Your task to perform on an android device: Search for jbl flip 4 on target, select the first entry, and add it to the cart. Image 0: 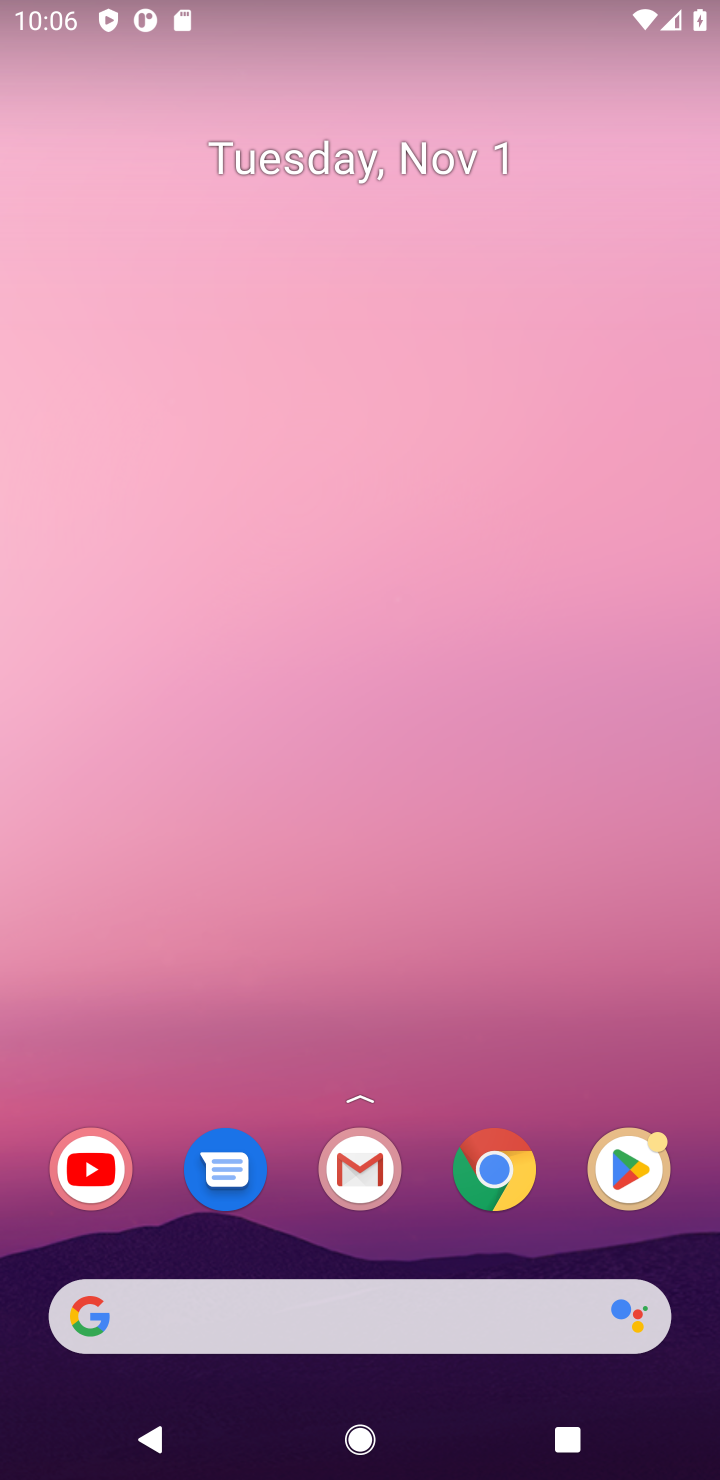
Step 0: press home button
Your task to perform on an android device: Search for jbl flip 4 on target, select the first entry, and add it to the cart. Image 1: 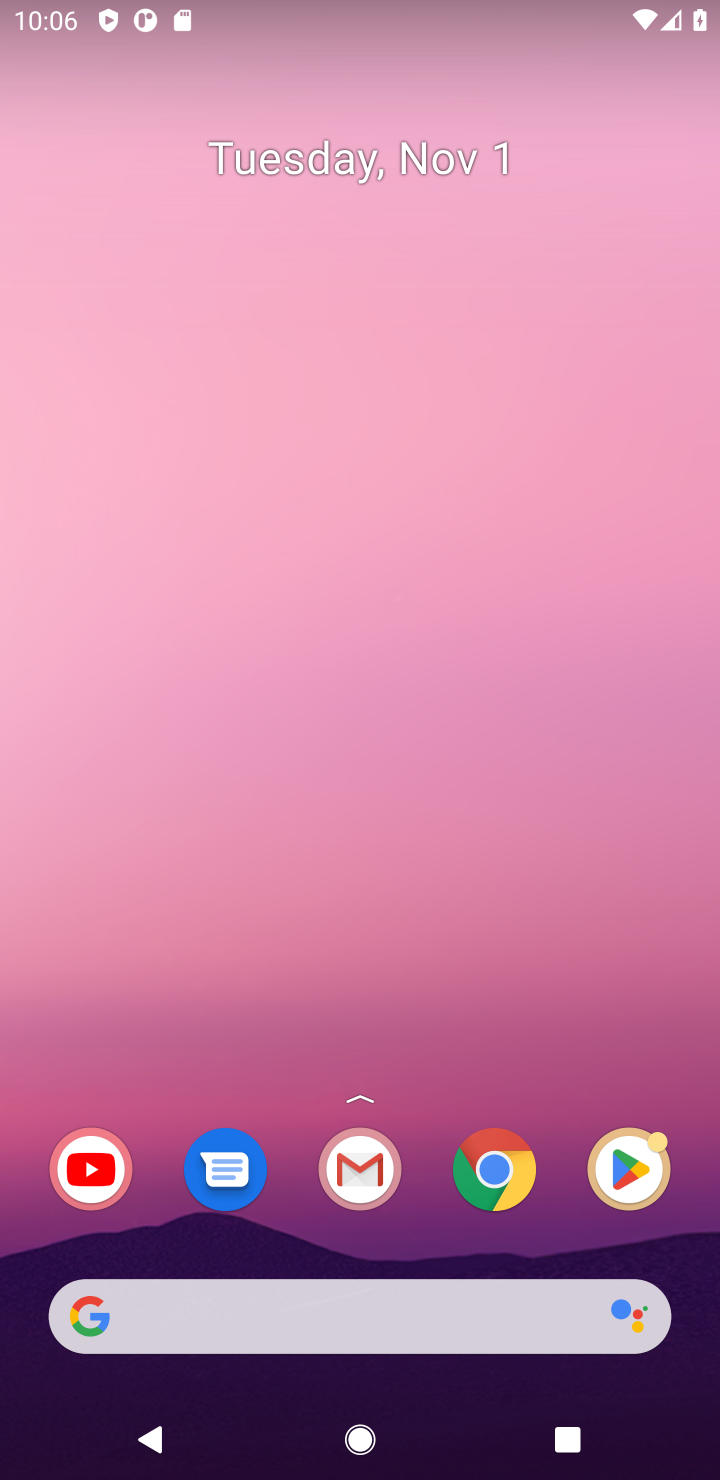
Step 1: click (502, 1175)
Your task to perform on an android device: Search for jbl flip 4 on target, select the first entry, and add it to the cart. Image 2: 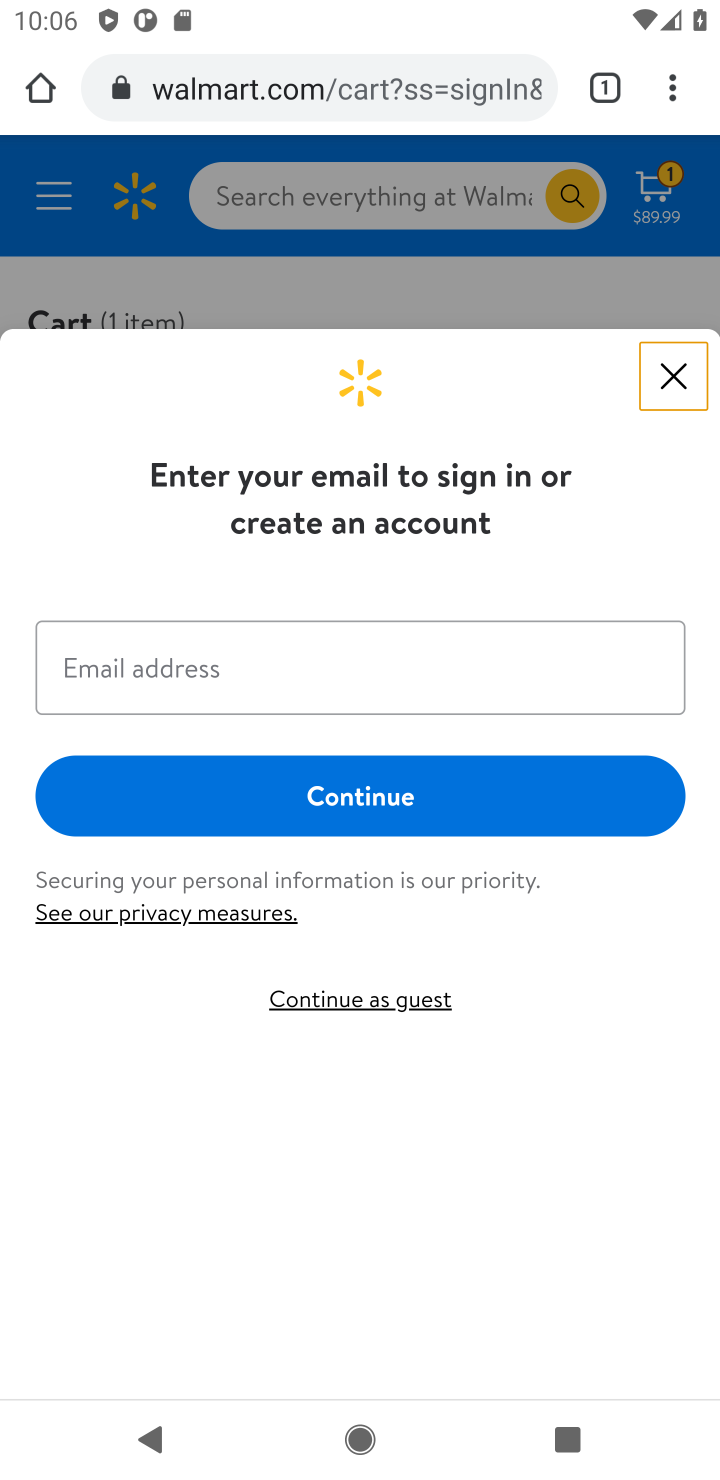
Step 2: click (662, 394)
Your task to perform on an android device: Search for jbl flip 4 on target, select the first entry, and add it to the cart. Image 3: 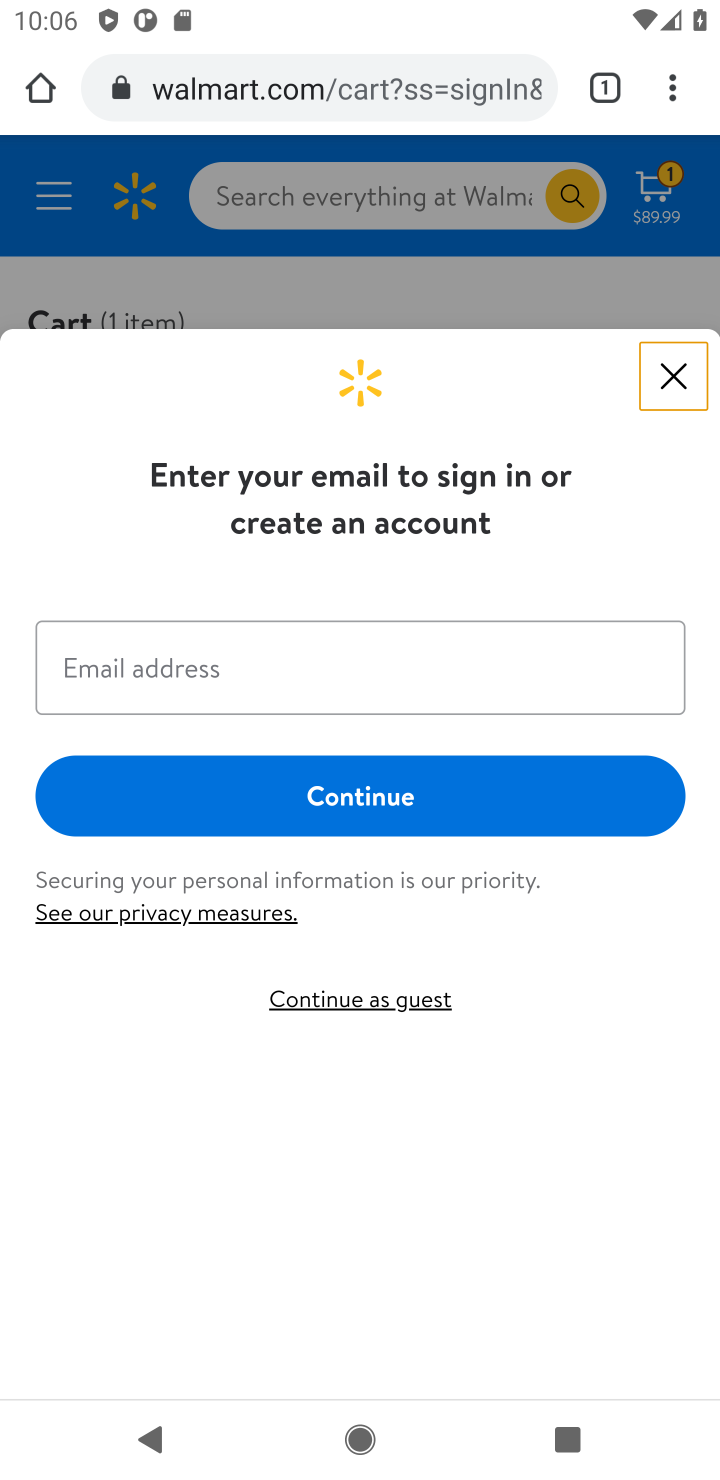
Step 3: click (314, 73)
Your task to perform on an android device: Search for jbl flip 4 on target, select the first entry, and add it to the cart. Image 4: 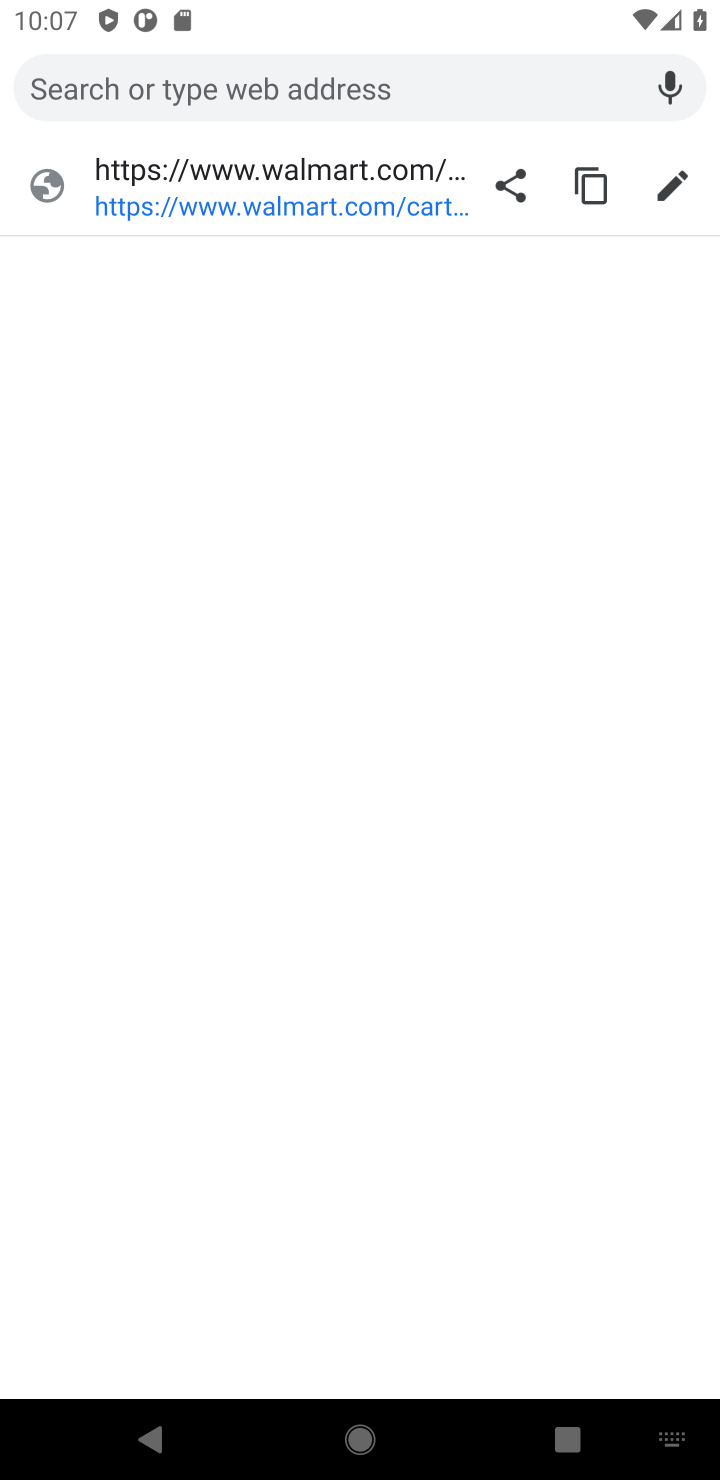
Step 4: type "target"
Your task to perform on an android device: Search for jbl flip 4 on target, select the first entry, and add it to the cart. Image 5: 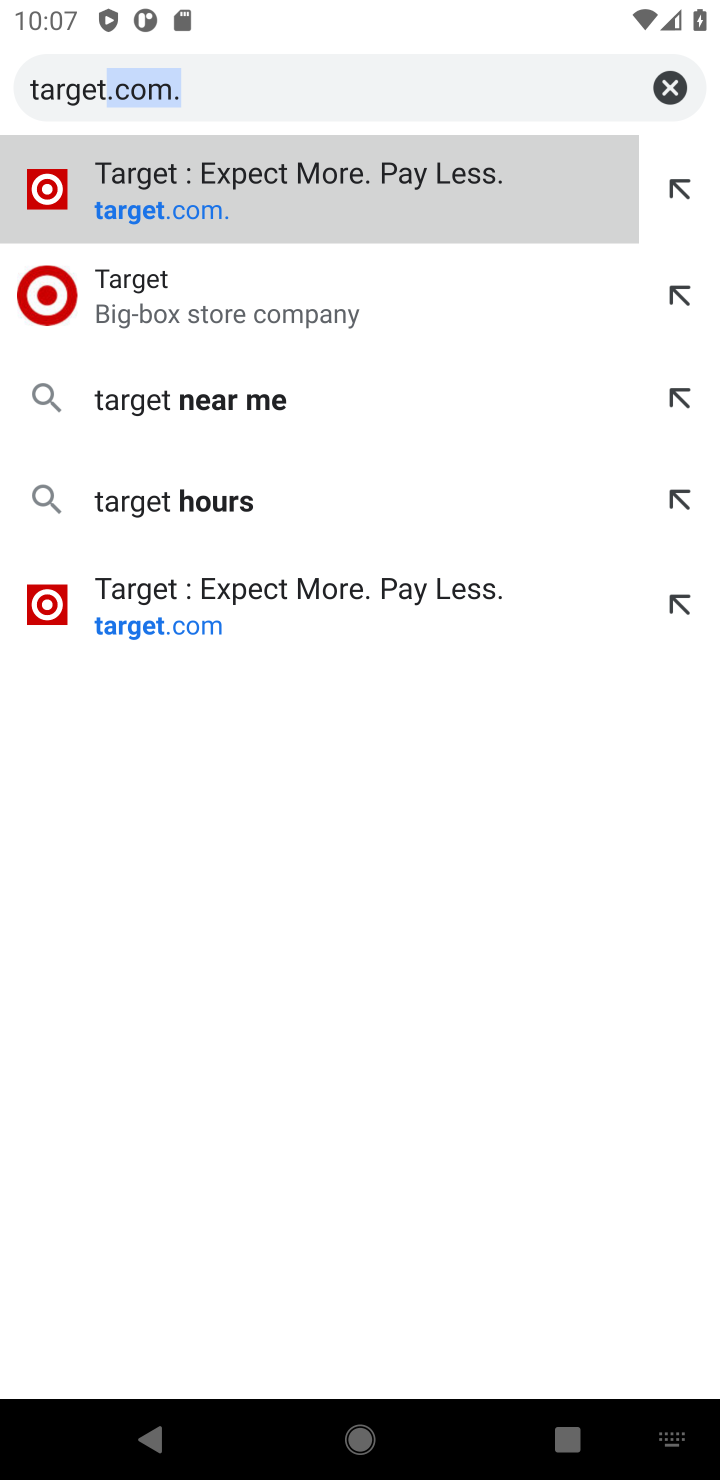
Step 5: press enter
Your task to perform on an android device: Search for jbl flip 4 on target, select the first entry, and add it to the cart. Image 6: 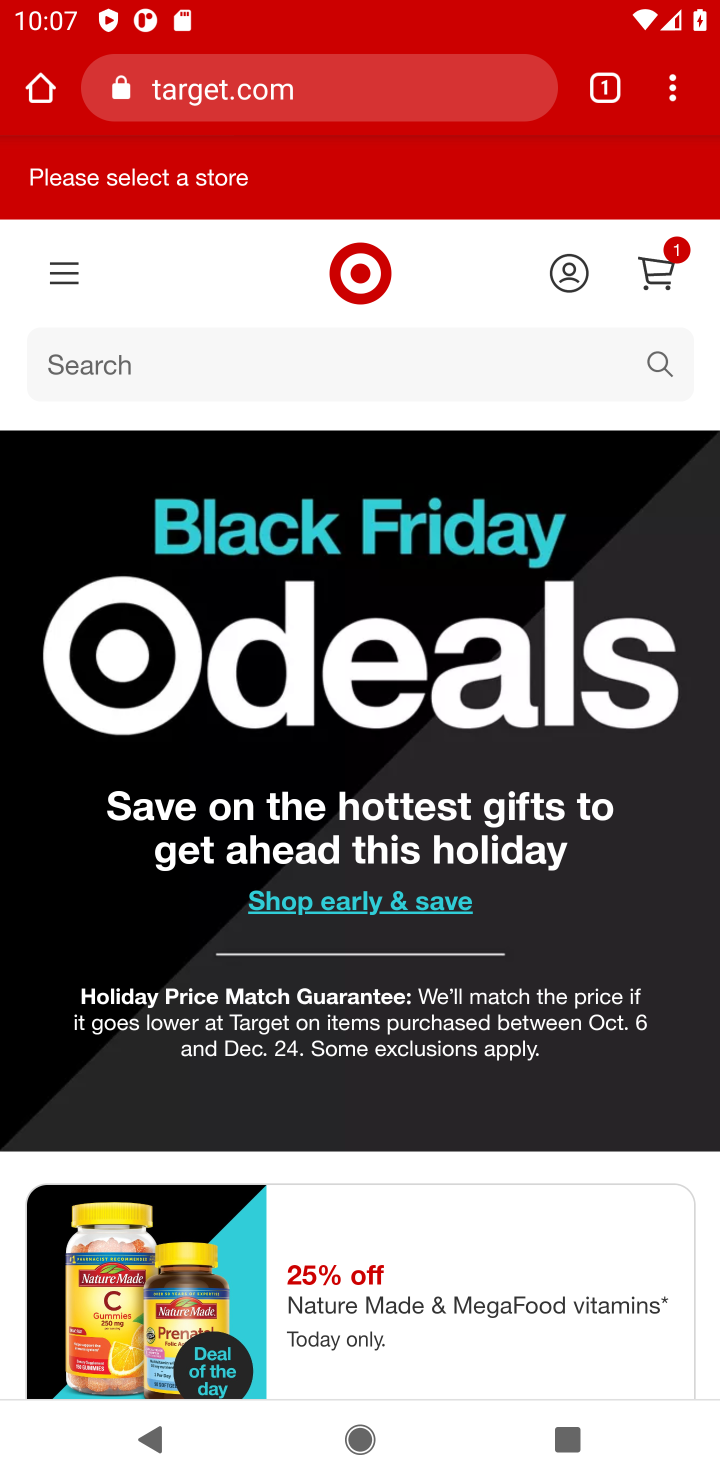
Step 6: click (655, 357)
Your task to perform on an android device: Search for jbl flip 4 on target, select the first entry, and add it to the cart. Image 7: 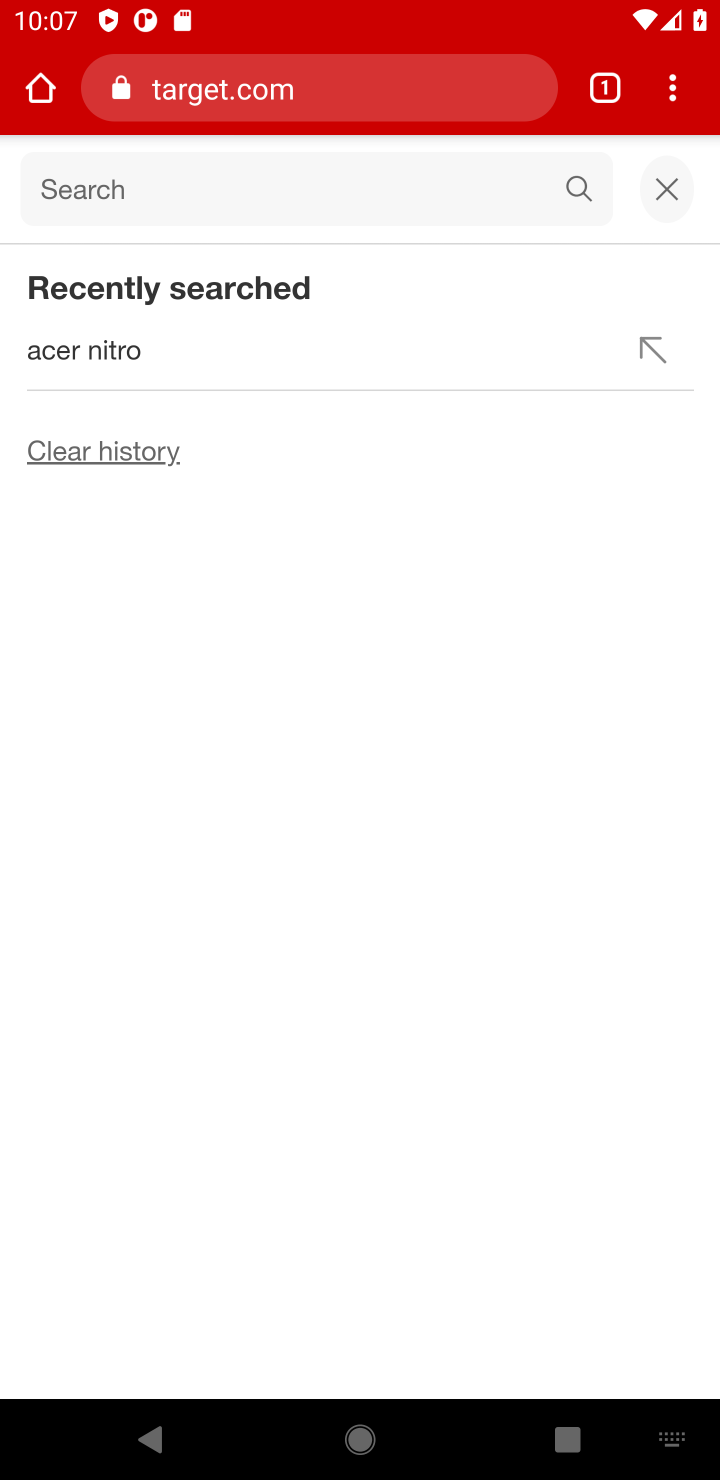
Step 7: type "jbl flip 4"
Your task to perform on an android device: Search for jbl flip 4 on target, select the first entry, and add it to the cart. Image 8: 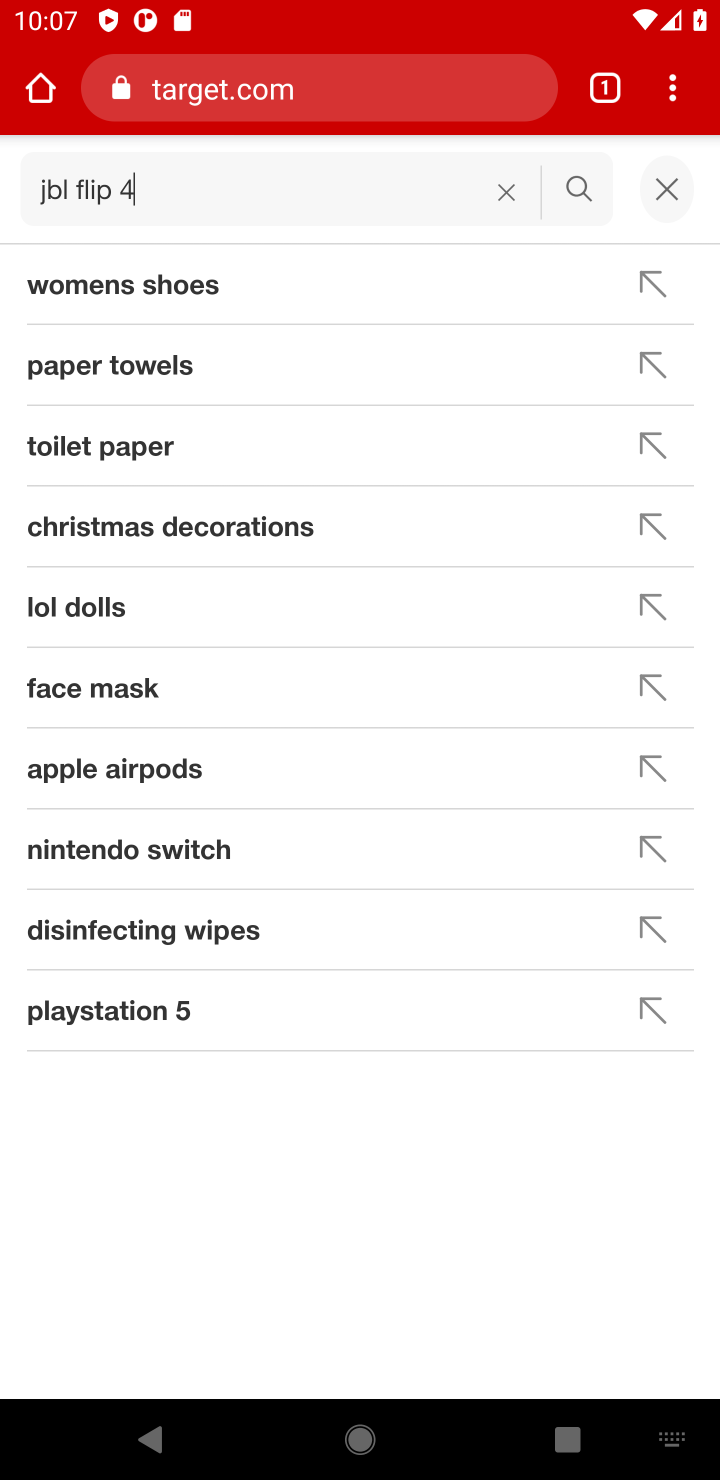
Step 8: press enter
Your task to perform on an android device: Search for jbl flip 4 on target, select the first entry, and add it to the cart. Image 9: 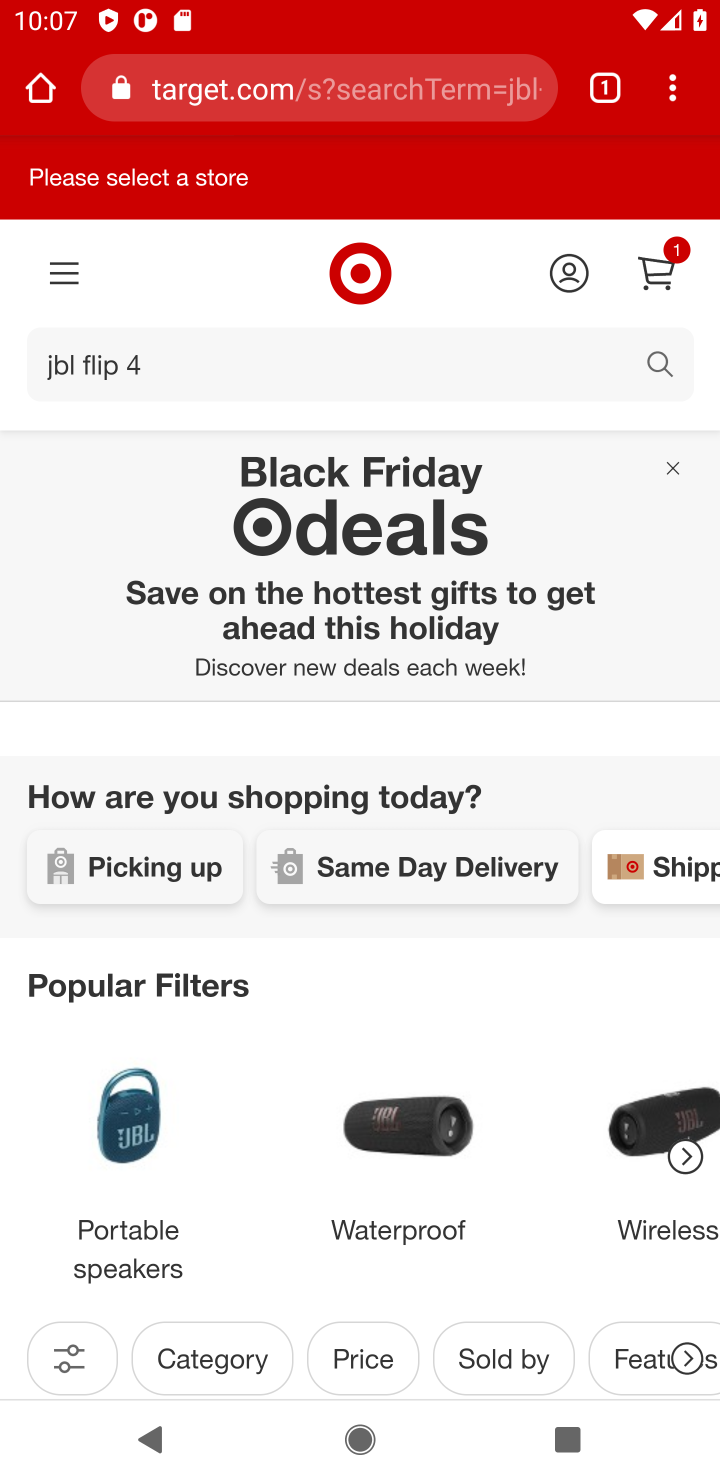
Step 9: drag from (516, 1063) to (438, 467)
Your task to perform on an android device: Search for jbl flip 4 on target, select the first entry, and add it to the cart. Image 10: 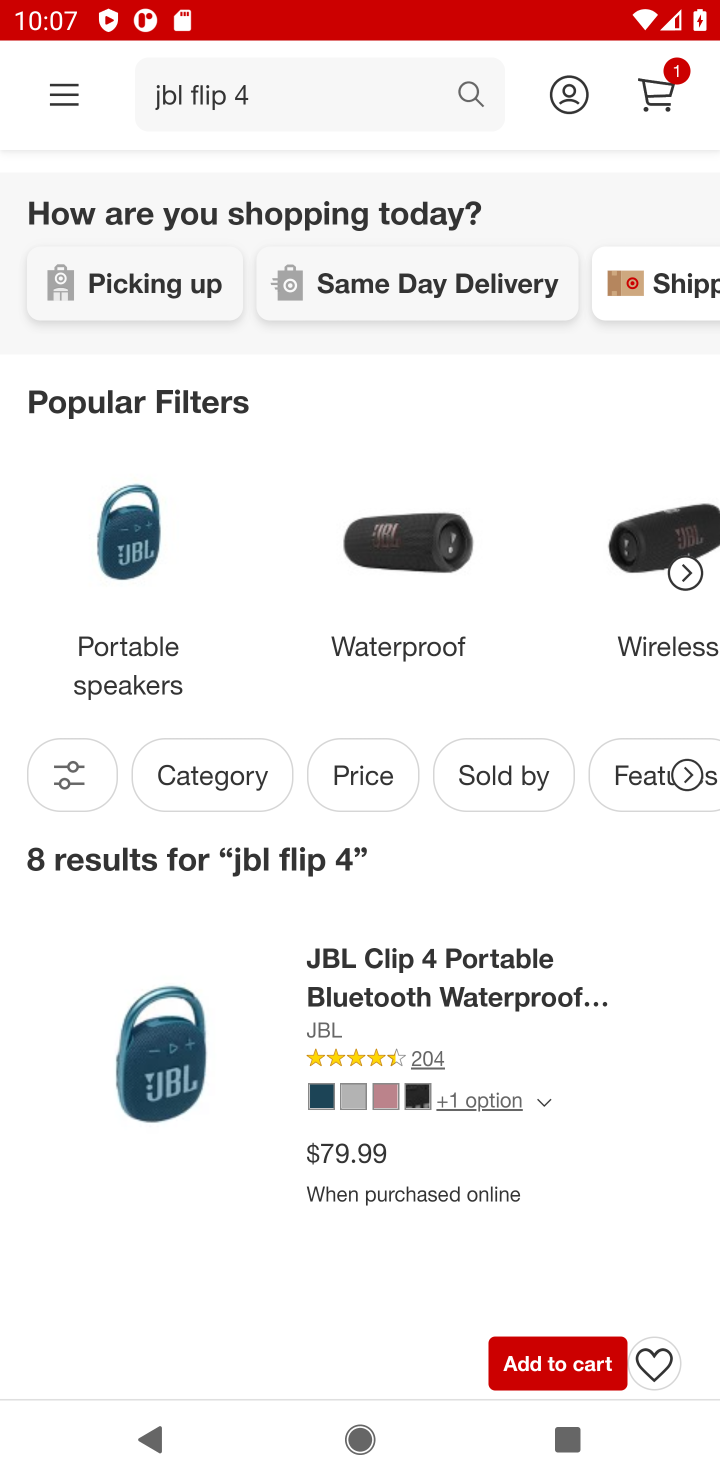
Step 10: click (157, 1032)
Your task to perform on an android device: Search for jbl flip 4 on target, select the first entry, and add it to the cart. Image 11: 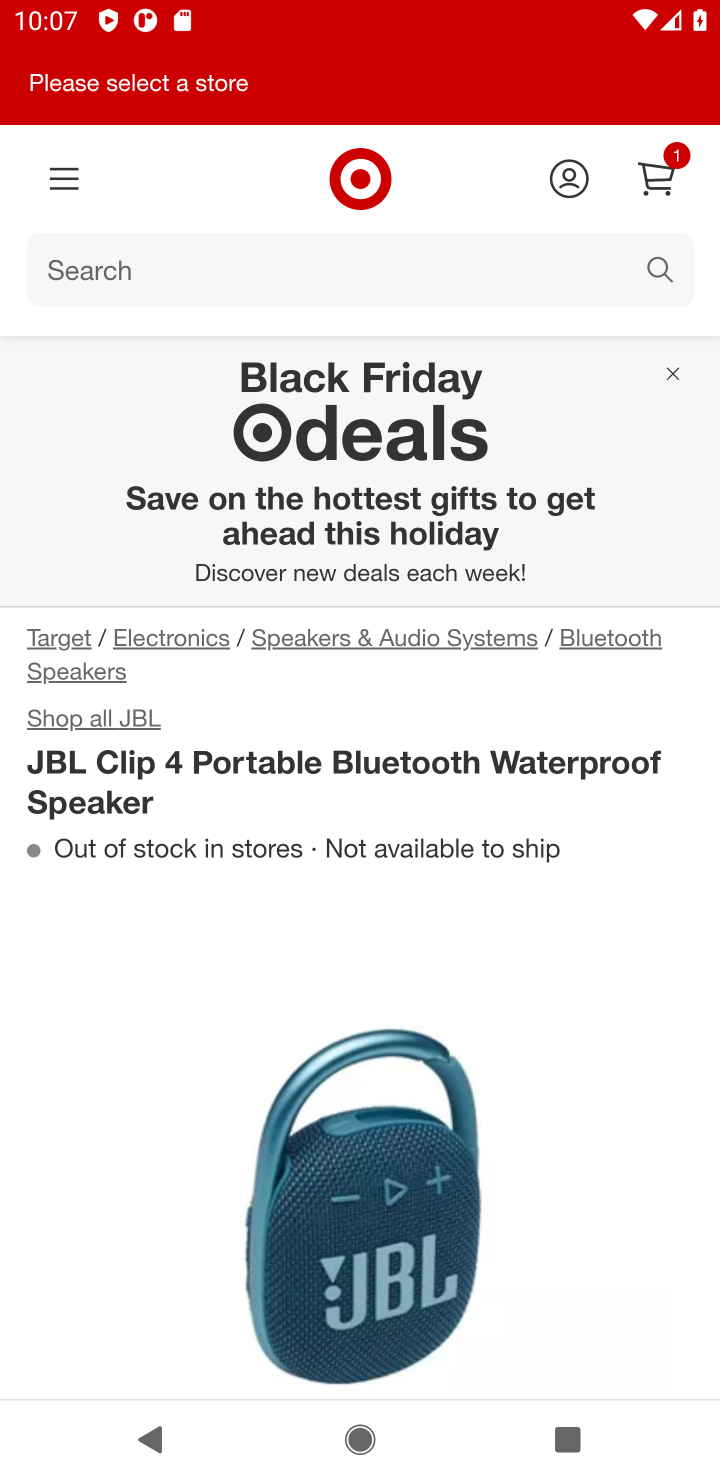
Step 11: drag from (633, 1210) to (562, 412)
Your task to perform on an android device: Search for jbl flip 4 on target, select the first entry, and add it to the cart. Image 12: 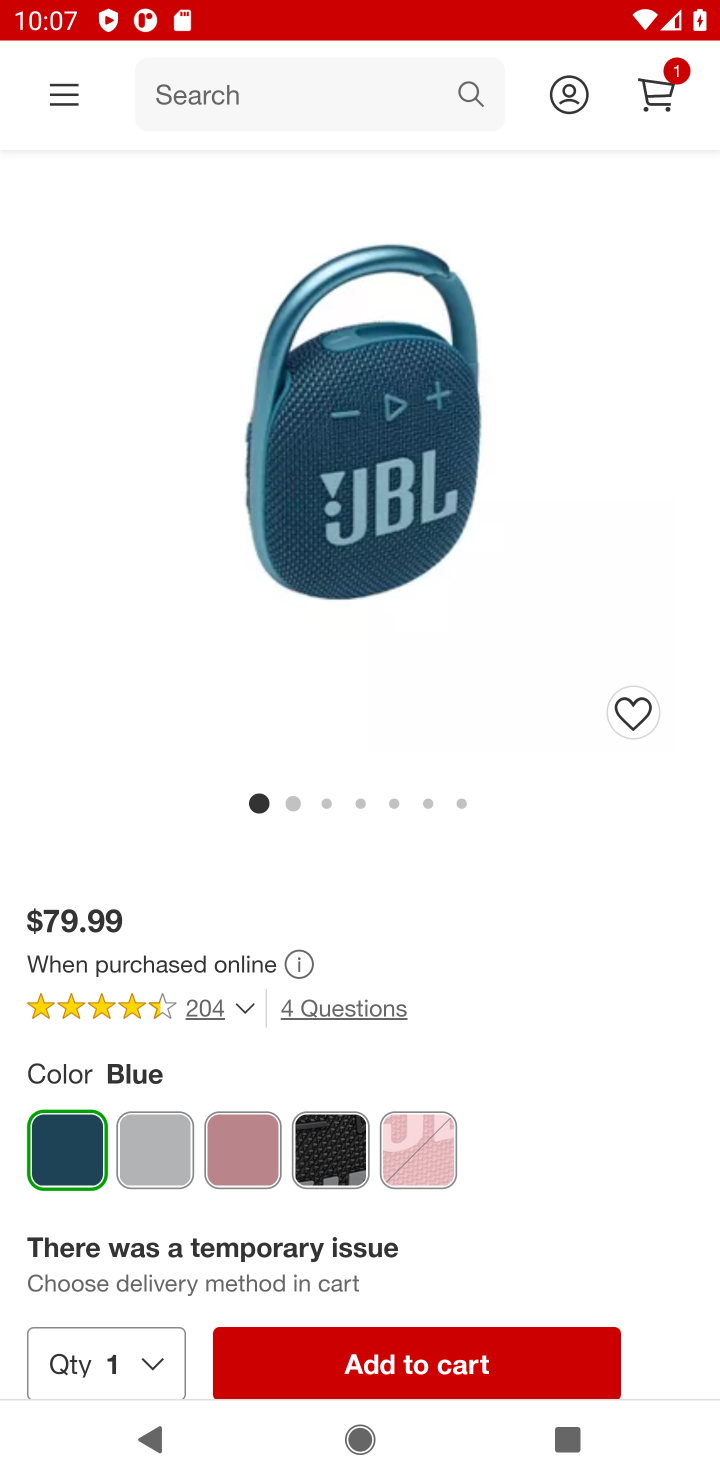
Step 12: drag from (531, 1154) to (482, 368)
Your task to perform on an android device: Search for jbl flip 4 on target, select the first entry, and add it to the cart. Image 13: 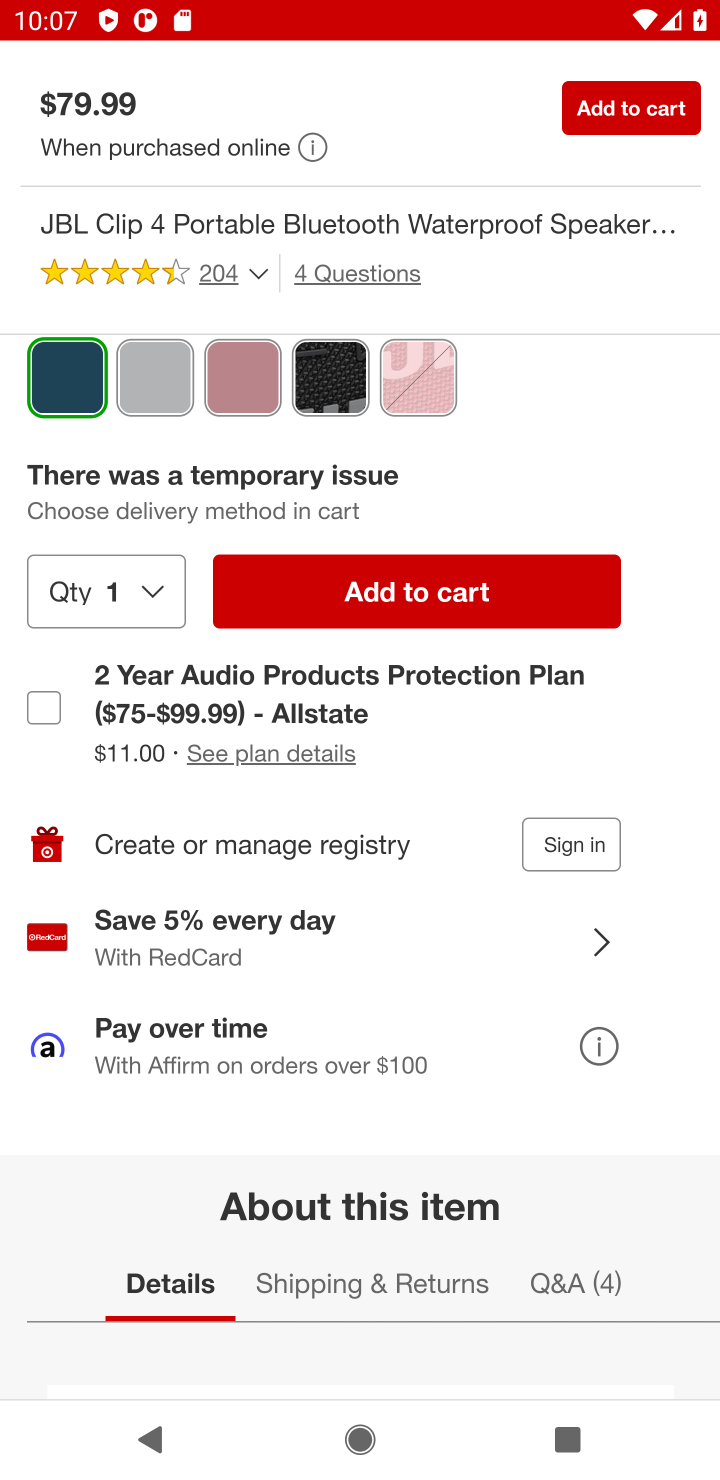
Step 13: click (441, 579)
Your task to perform on an android device: Search for jbl flip 4 on target, select the first entry, and add it to the cart. Image 14: 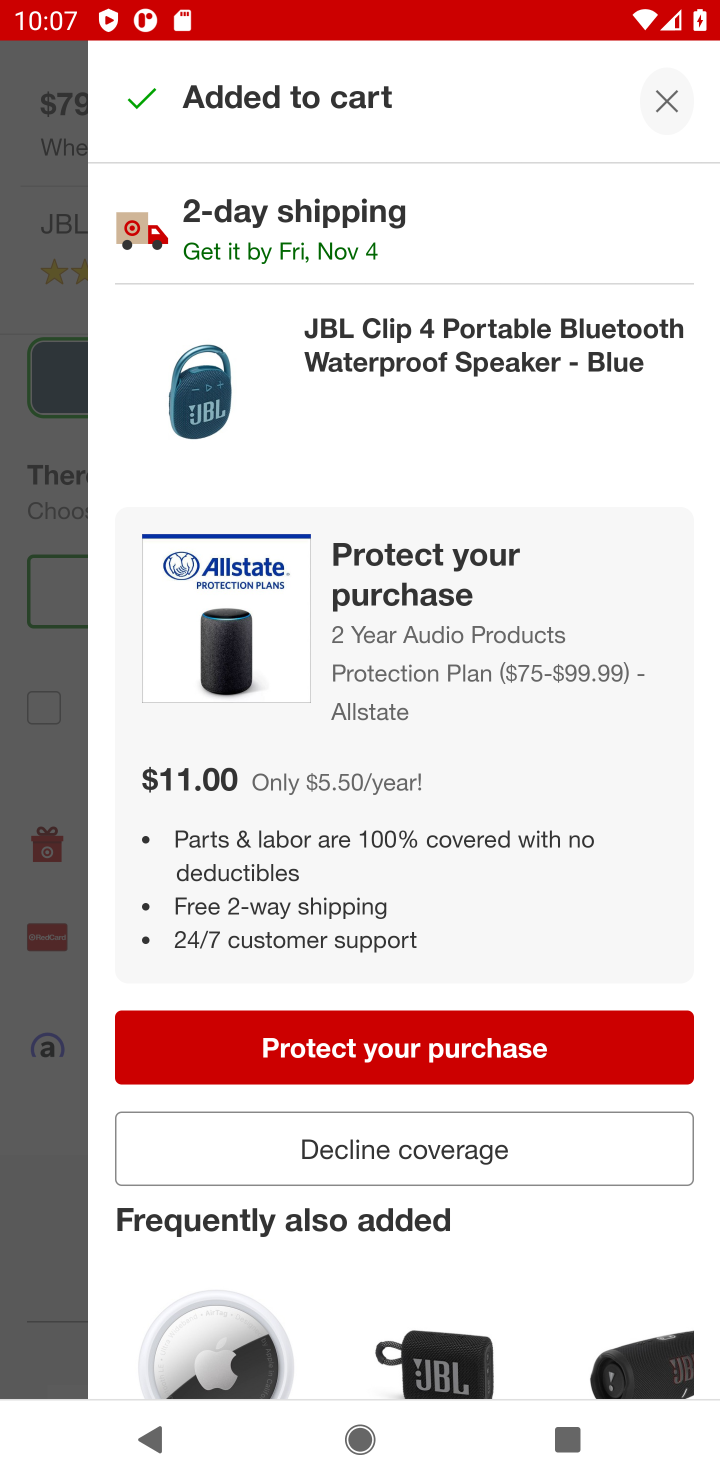
Step 14: task complete